Your task to perform on an android device: all mails in gmail Image 0: 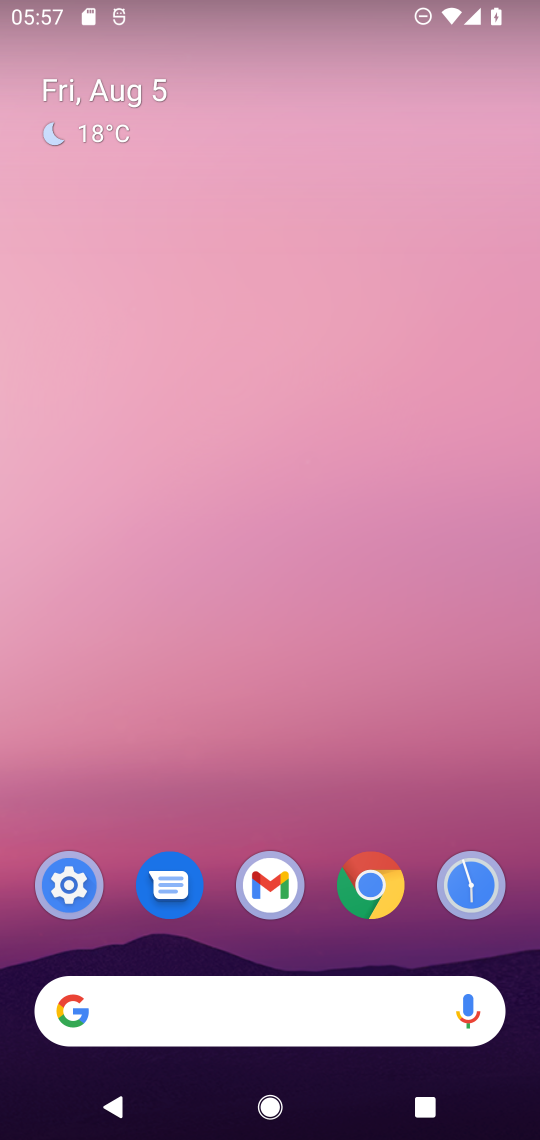
Step 0: drag from (329, 928) to (332, 173)
Your task to perform on an android device: all mails in gmail Image 1: 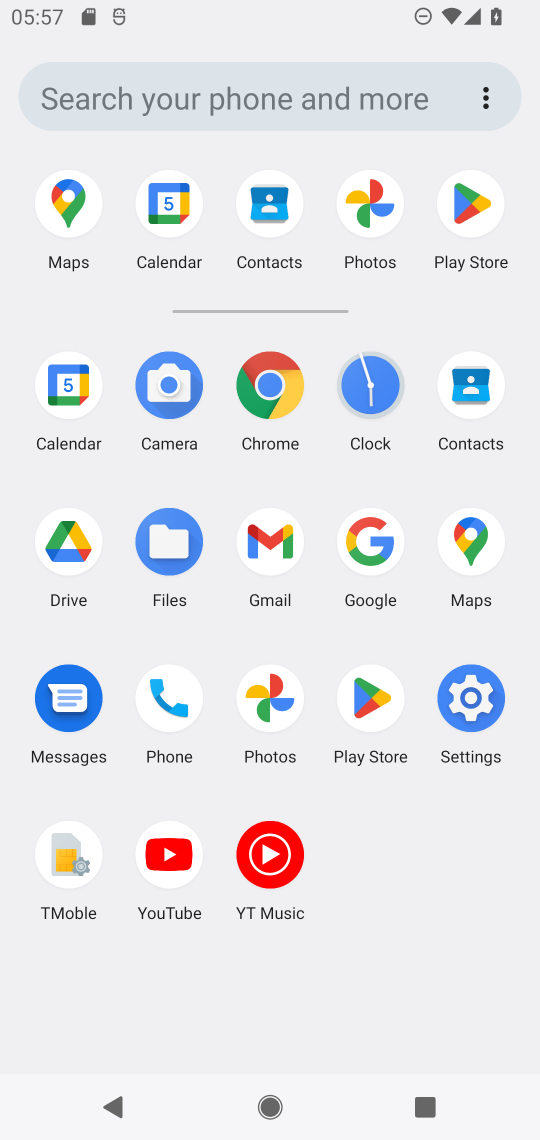
Step 1: click (271, 531)
Your task to perform on an android device: all mails in gmail Image 2: 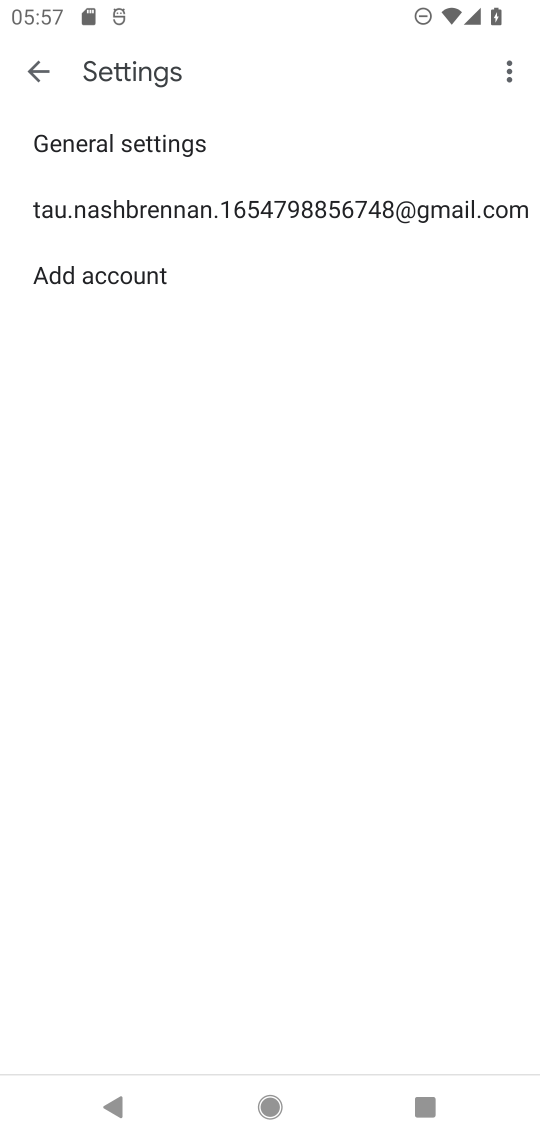
Step 2: click (41, 73)
Your task to perform on an android device: all mails in gmail Image 3: 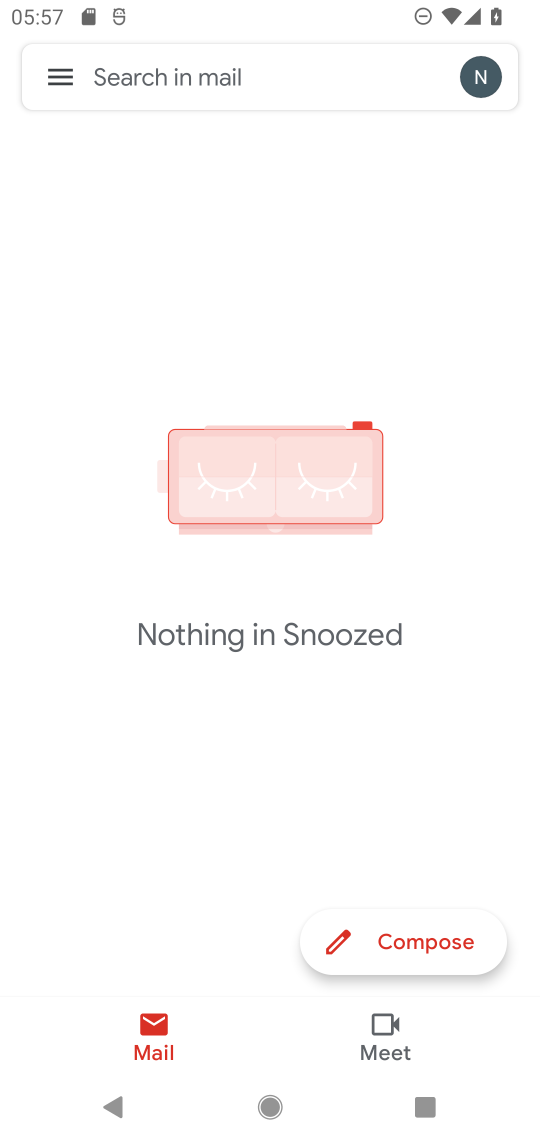
Step 3: click (62, 70)
Your task to perform on an android device: all mails in gmail Image 4: 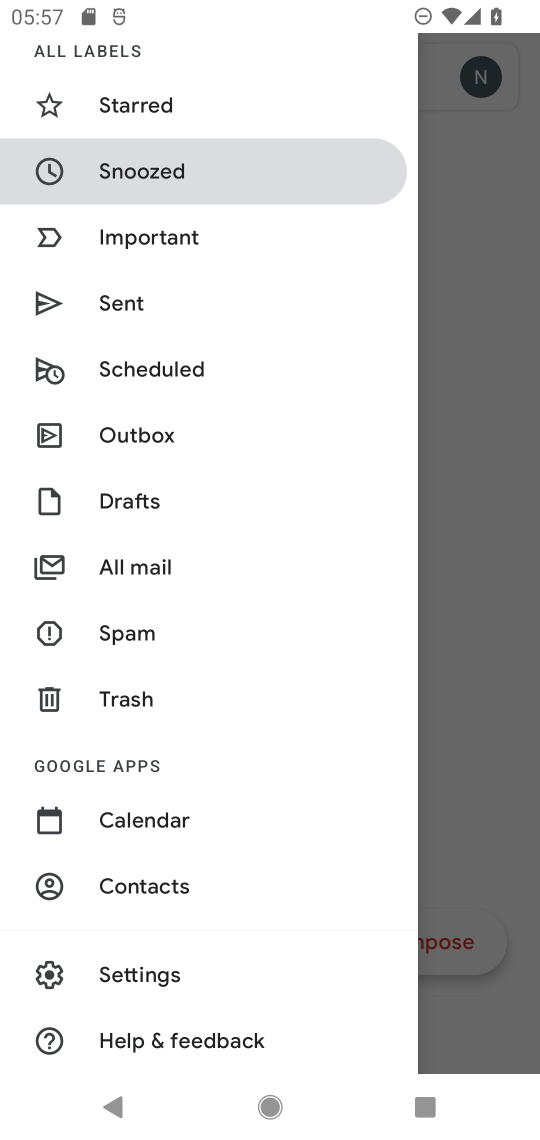
Step 4: click (128, 566)
Your task to perform on an android device: all mails in gmail Image 5: 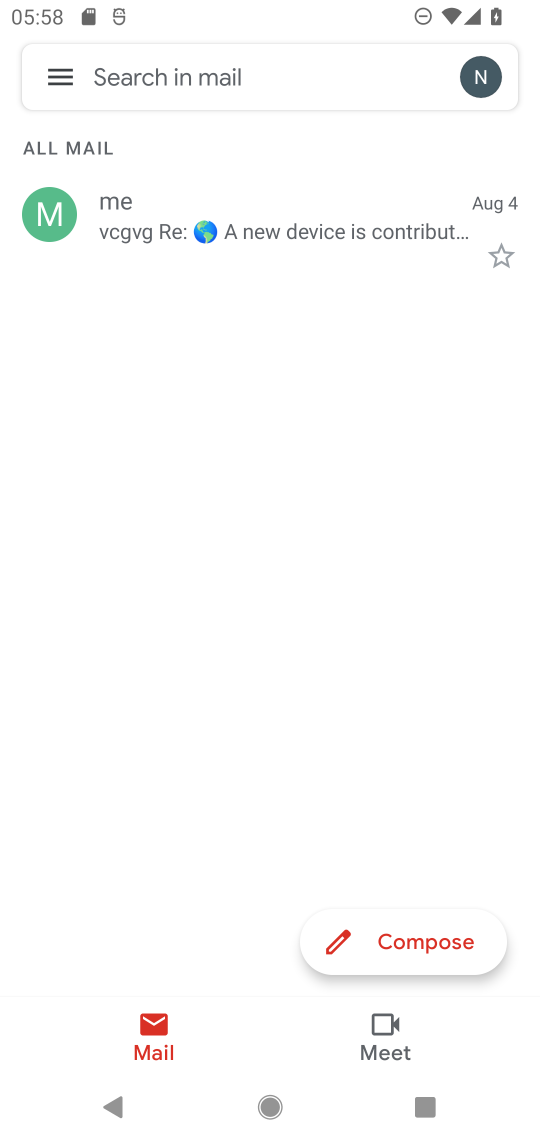
Step 5: task complete